Your task to perform on an android device: change your default location settings in chrome Image 0: 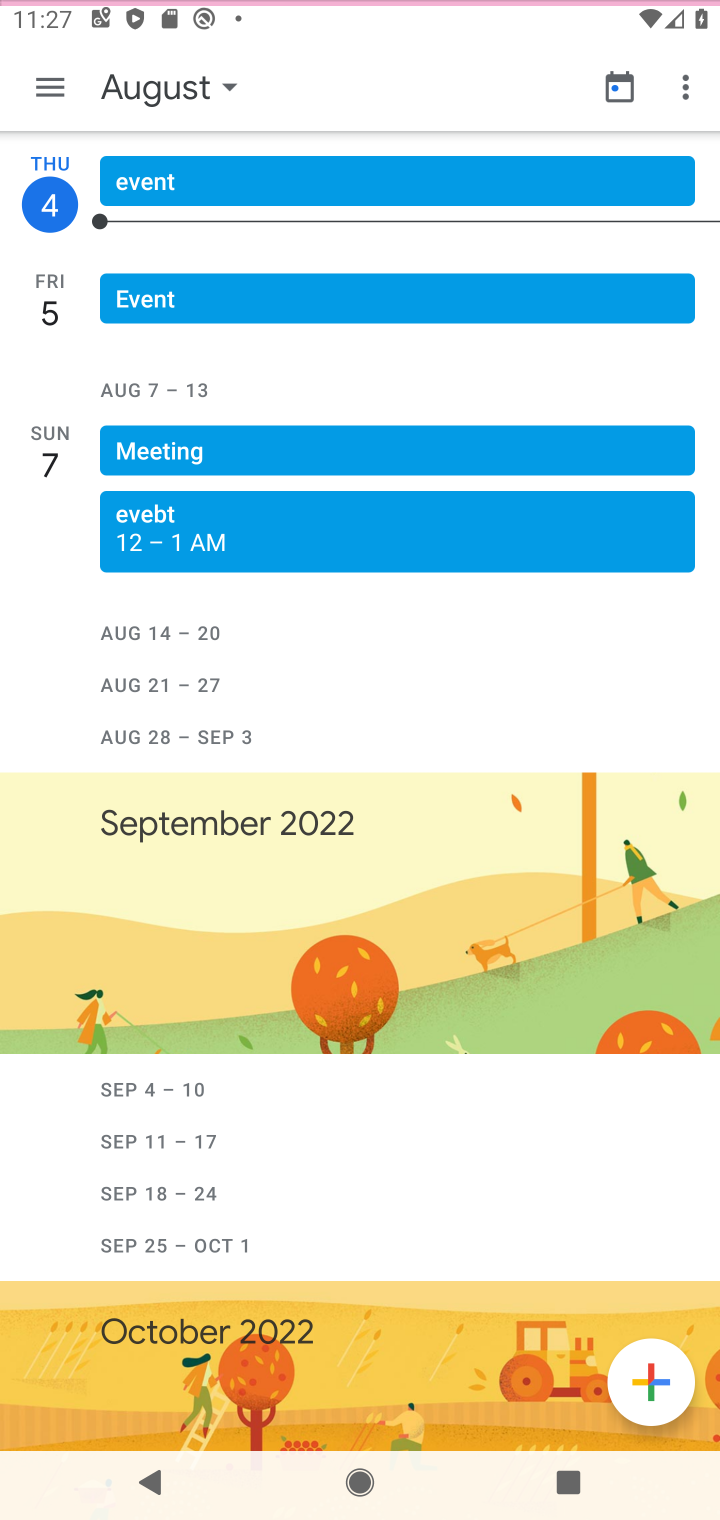
Step 0: press back button
Your task to perform on an android device: change your default location settings in chrome Image 1: 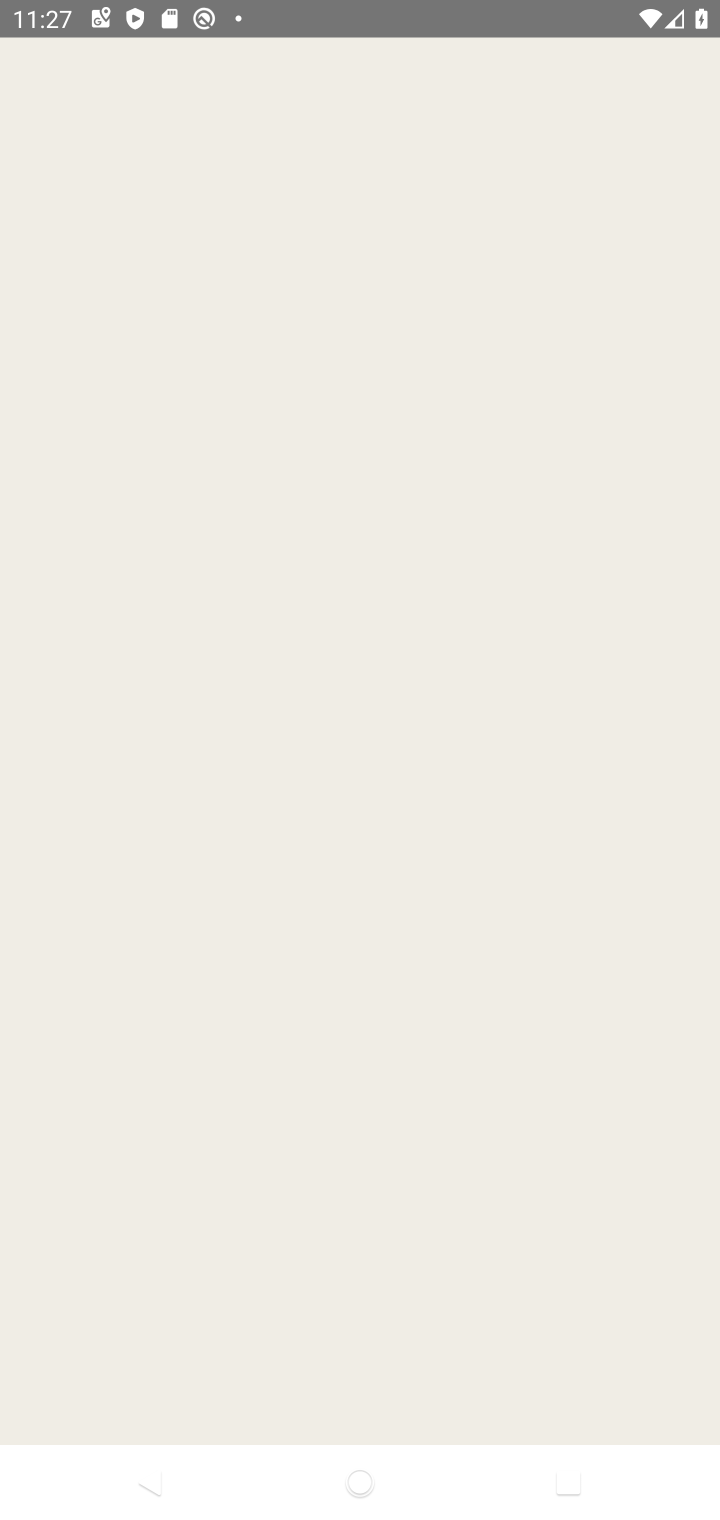
Step 1: press back button
Your task to perform on an android device: change your default location settings in chrome Image 2: 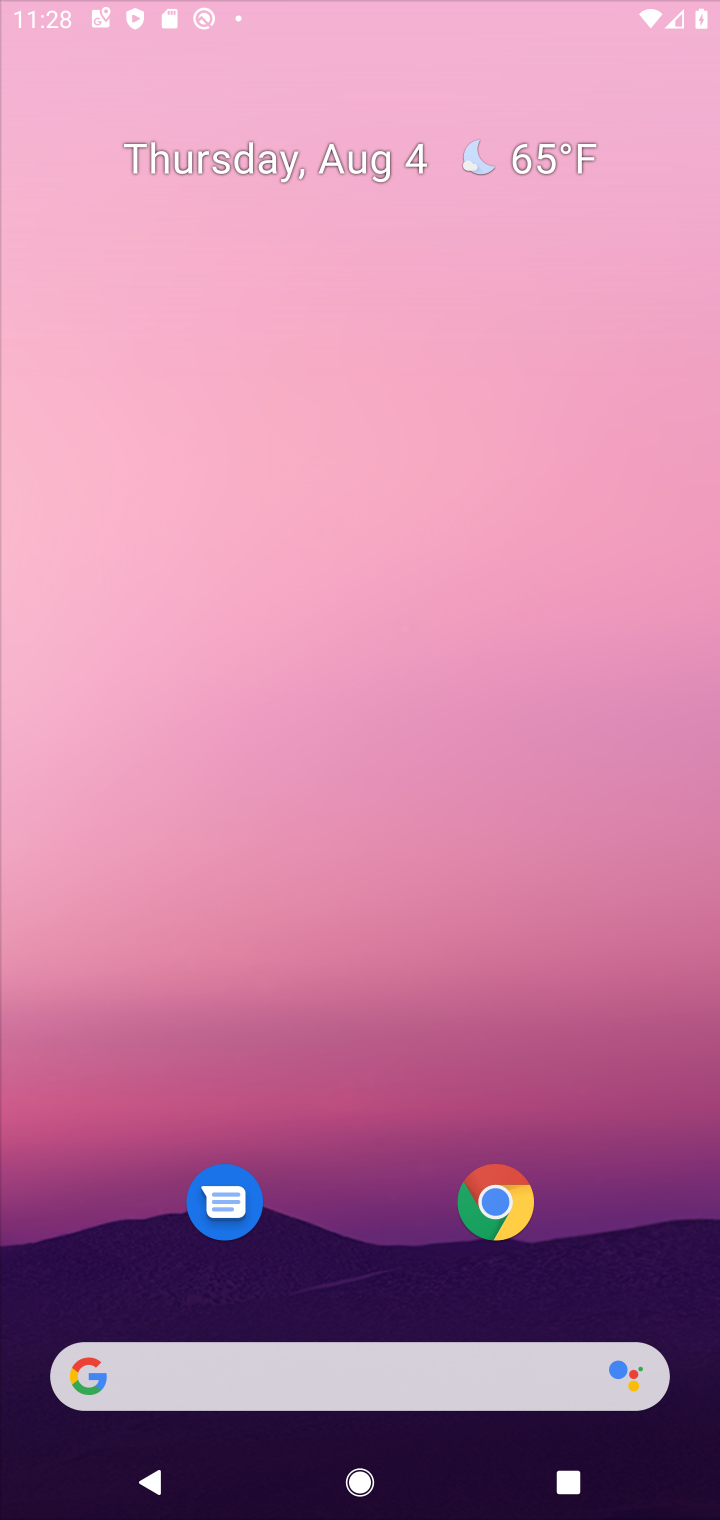
Step 2: press back button
Your task to perform on an android device: change your default location settings in chrome Image 3: 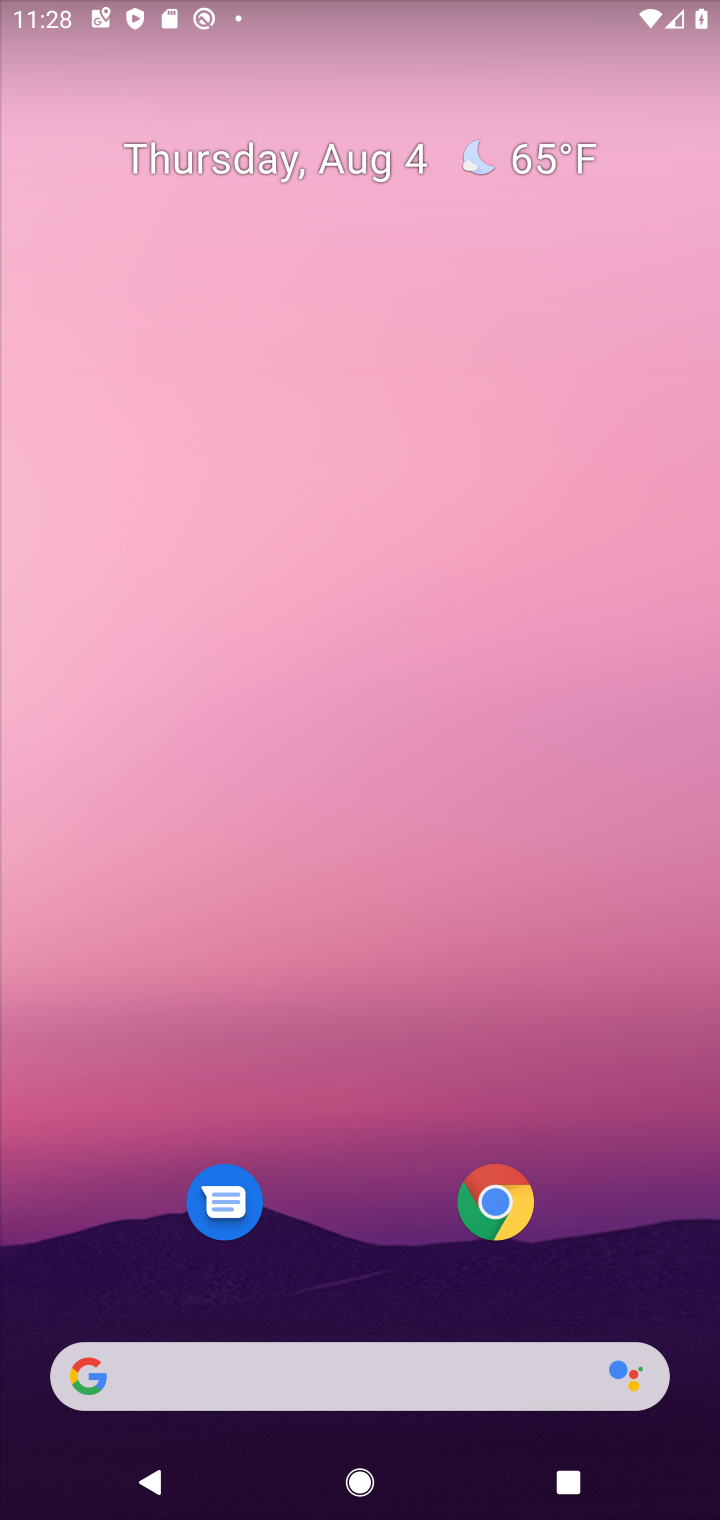
Step 3: press home button
Your task to perform on an android device: change your default location settings in chrome Image 4: 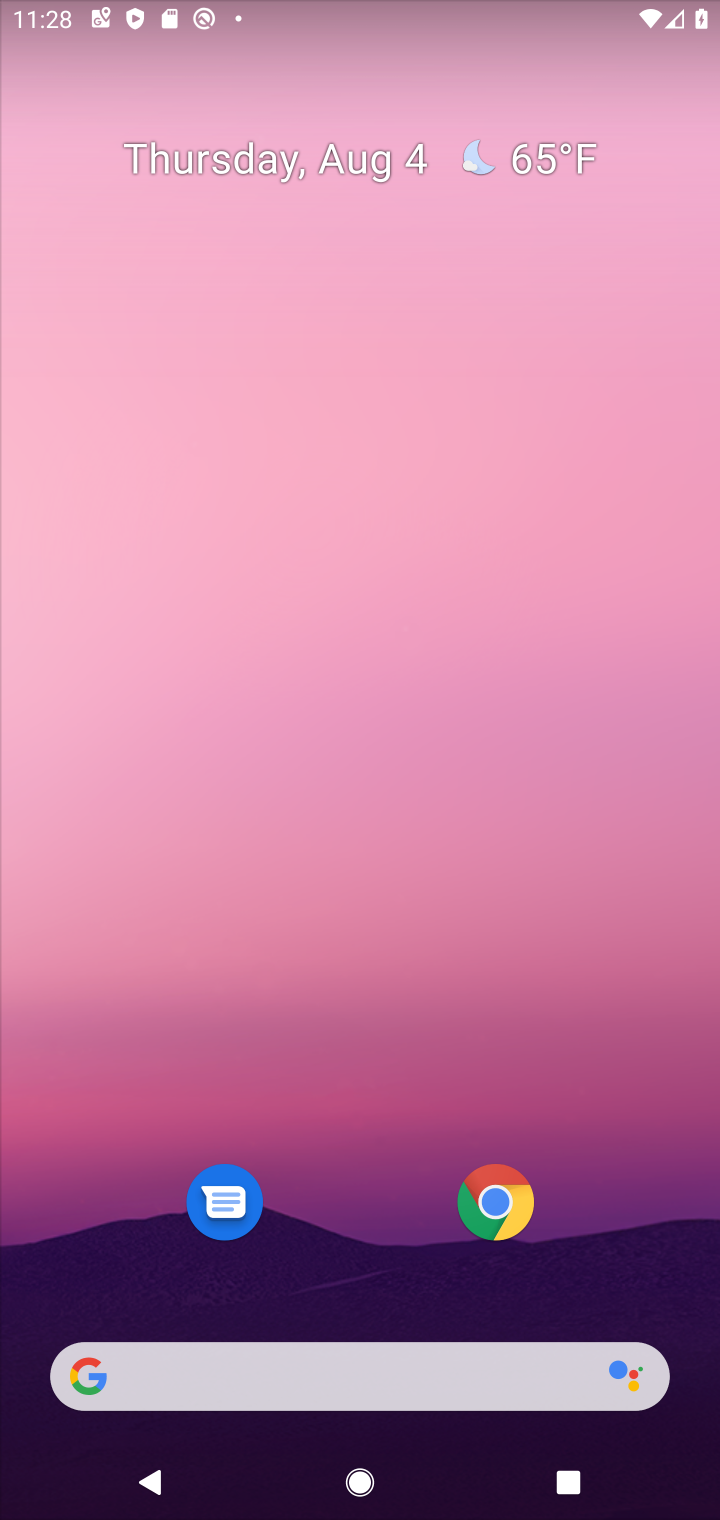
Step 4: click (463, 1198)
Your task to perform on an android device: change your default location settings in chrome Image 5: 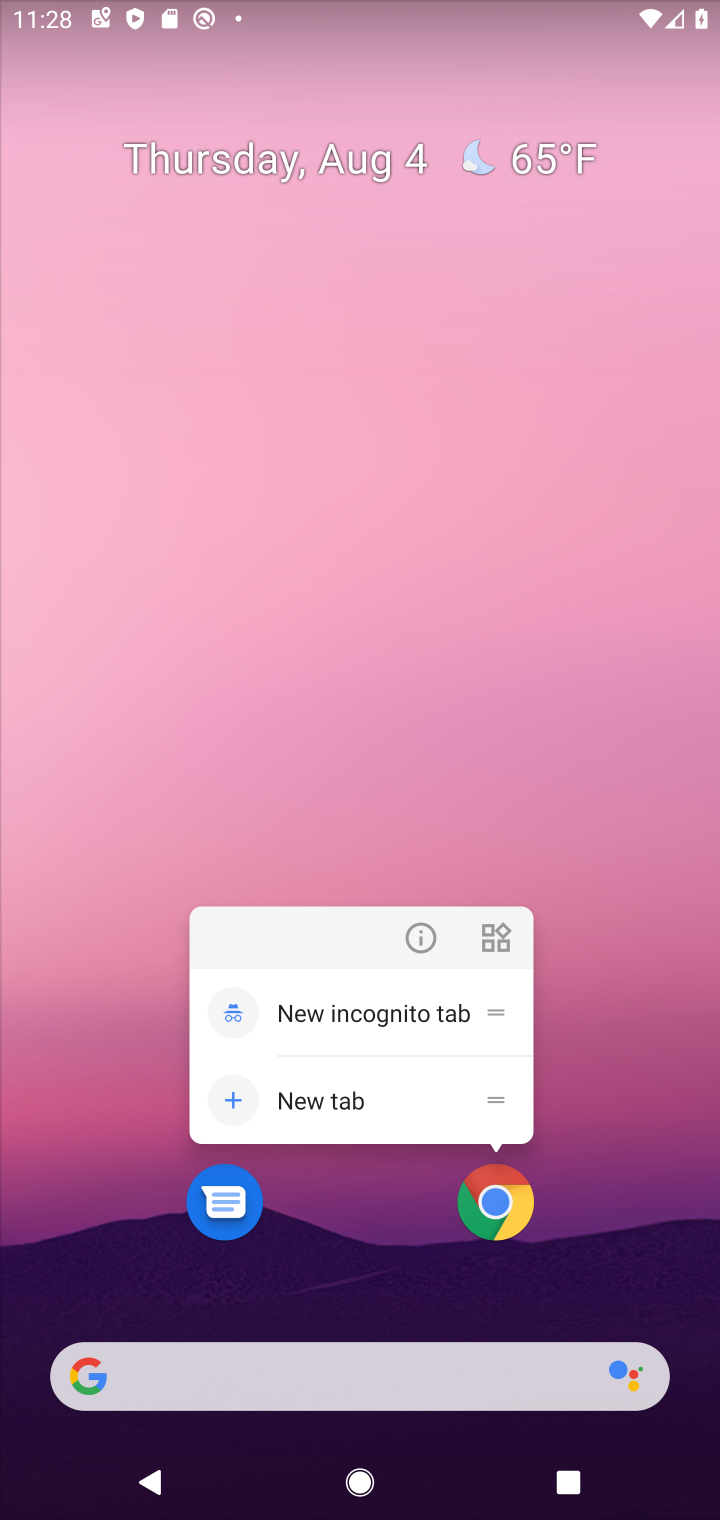
Step 5: click (486, 1204)
Your task to perform on an android device: change your default location settings in chrome Image 6: 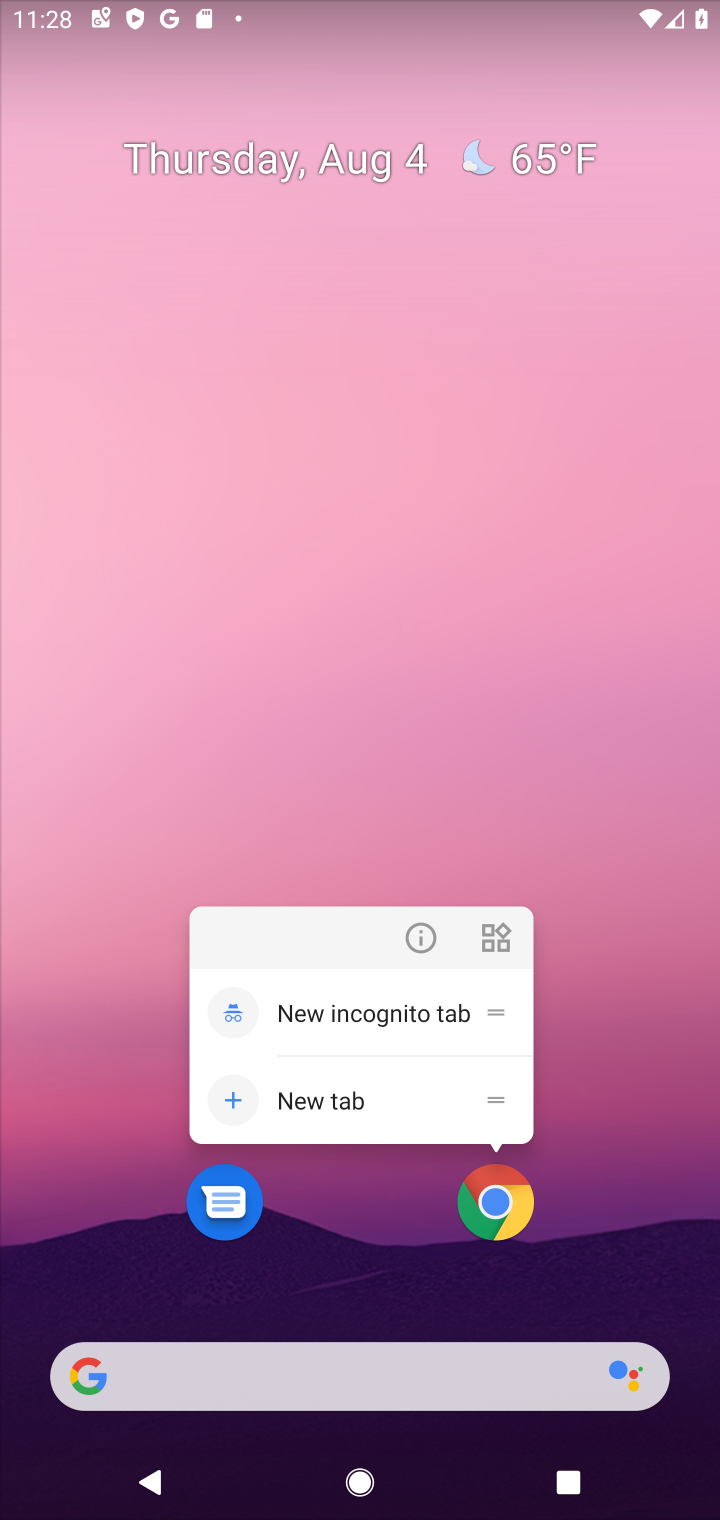
Step 6: click (486, 1206)
Your task to perform on an android device: change your default location settings in chrome Image 7: 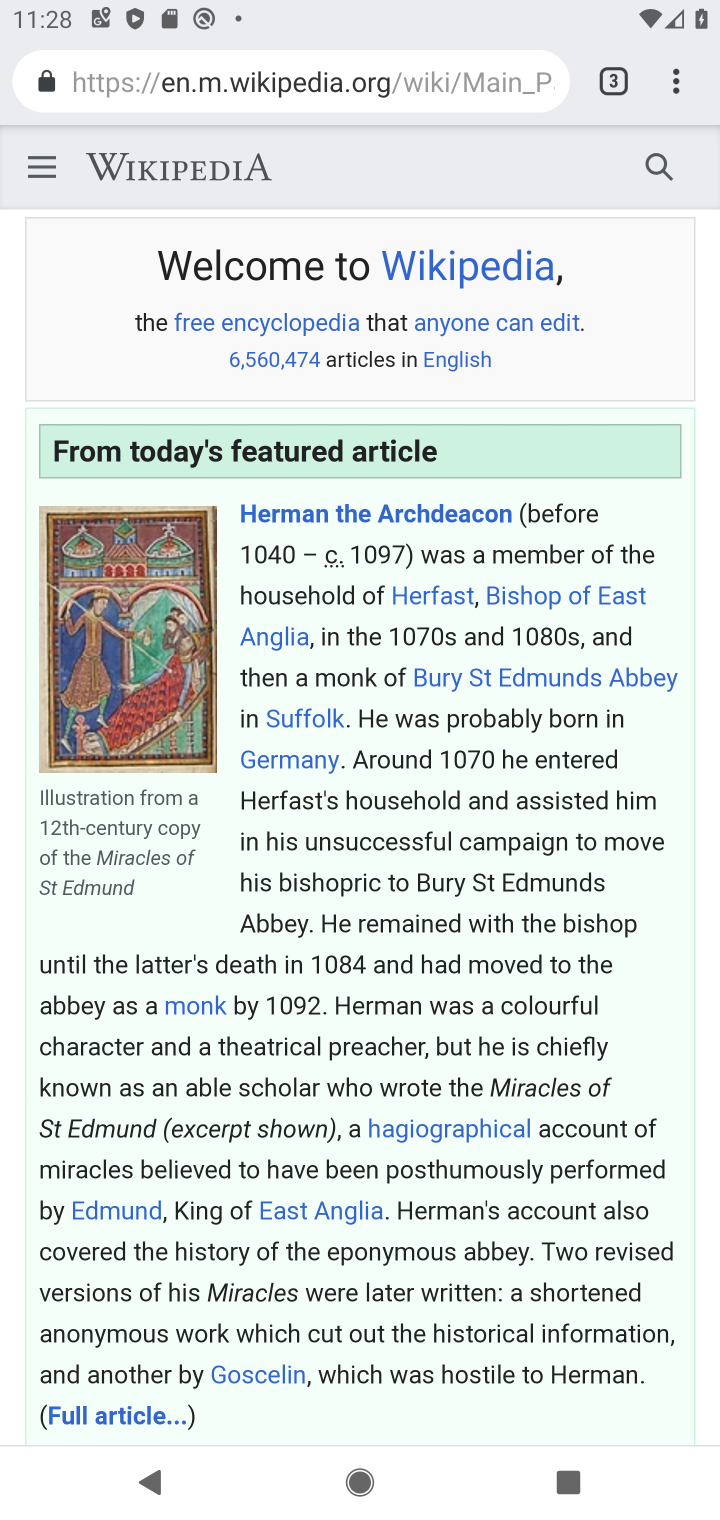
Step 7: drag from (678, 74) to (428, 978)
Your task to perform on an android device: change your default location settings in chrome Image 8: 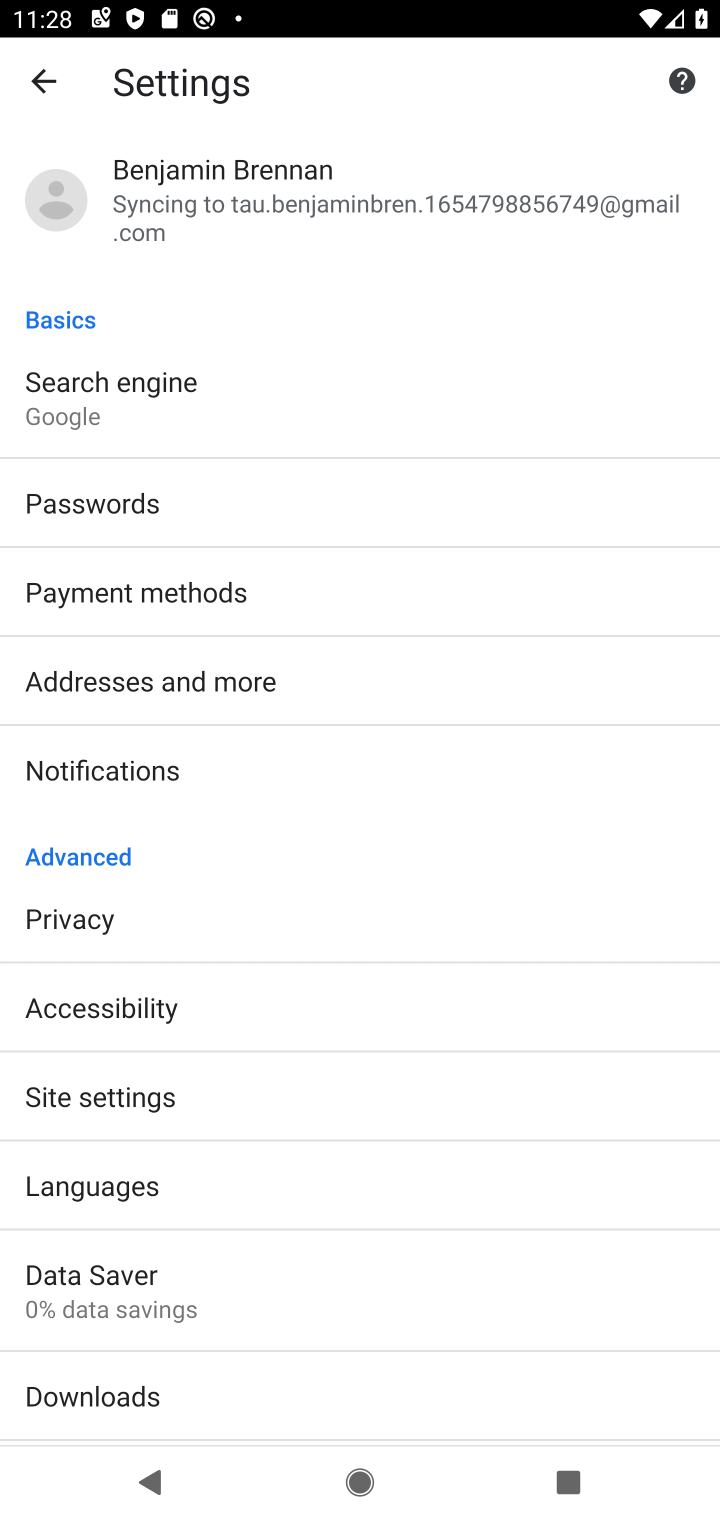
Step 8: click (174, 1073)
Your task to perform on an android device: change your default location settings in chrome Image 9: 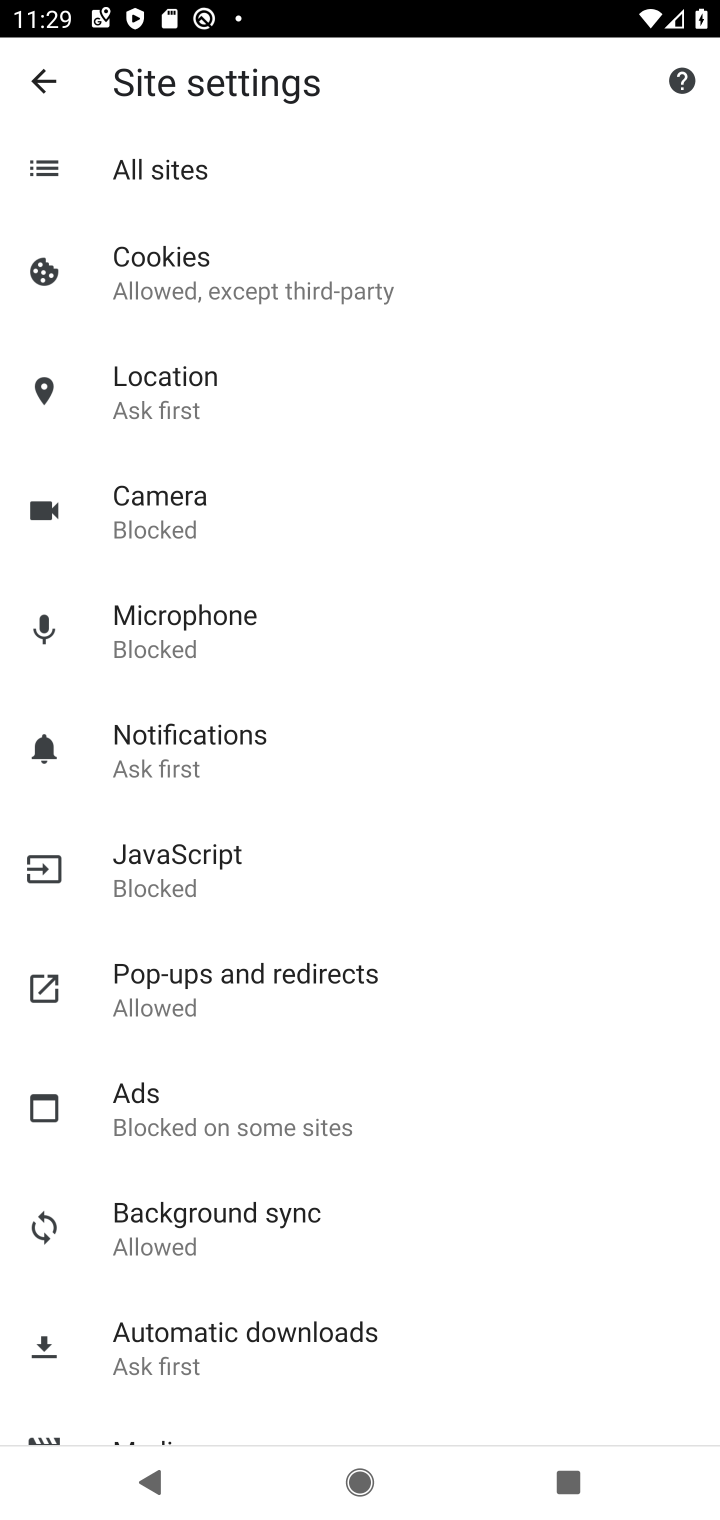
Step 9: click (270, 1090)
Your task to perform on an android device: change your default location settings in chrome Image 10: 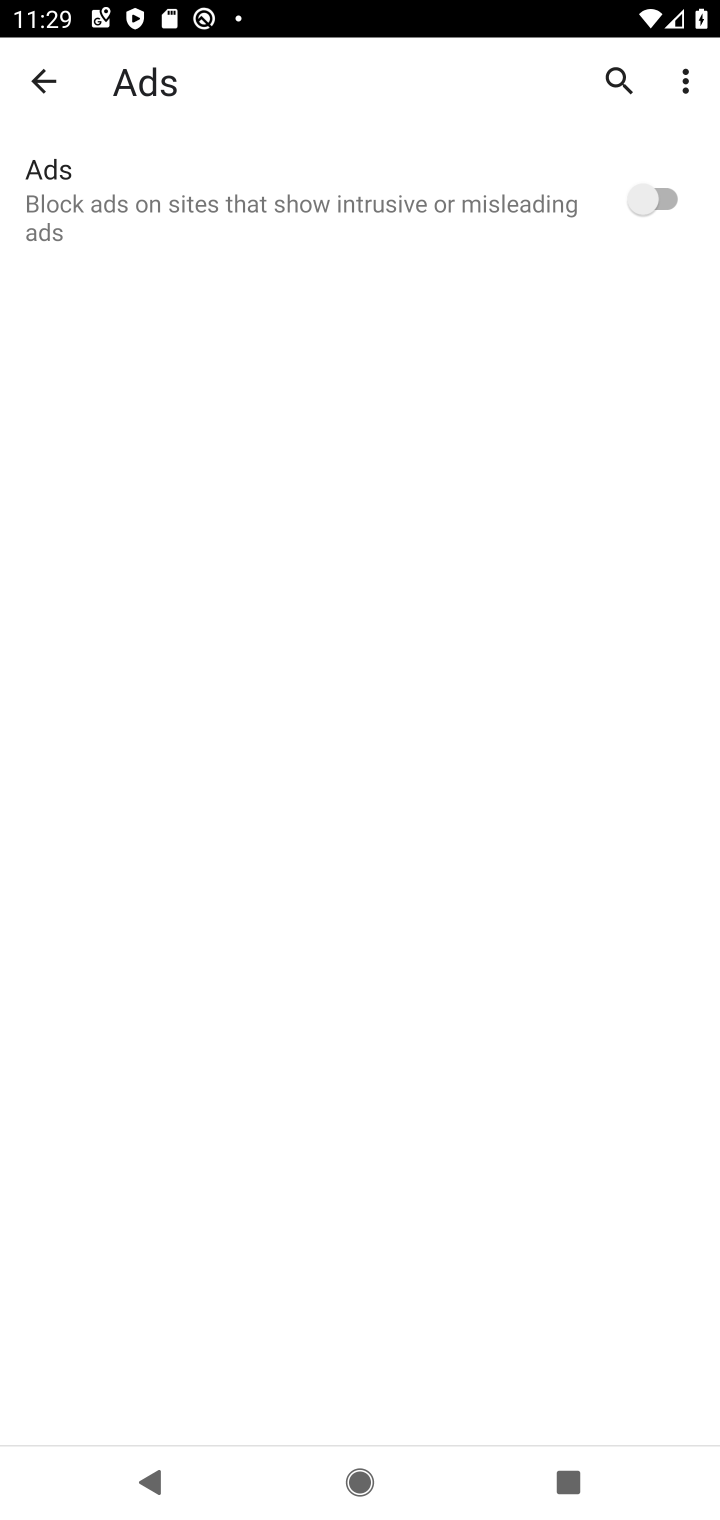
Step 10: click (26, 72)
Your task to perform on an android device: change your default location settings in chrome Image 11: 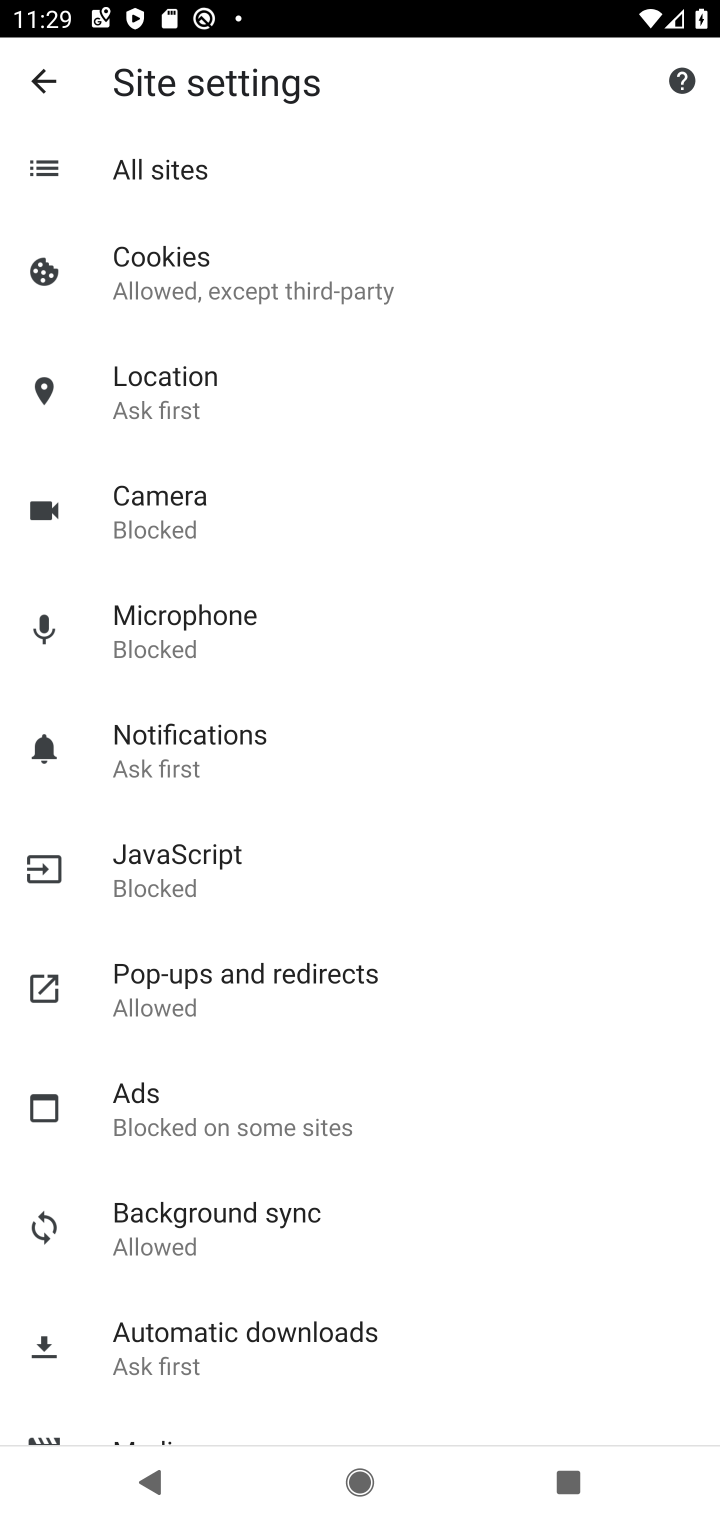
Step 11: click (220, 397)
Your task to perform on an android device: change your default location settings in chrome Image 12: 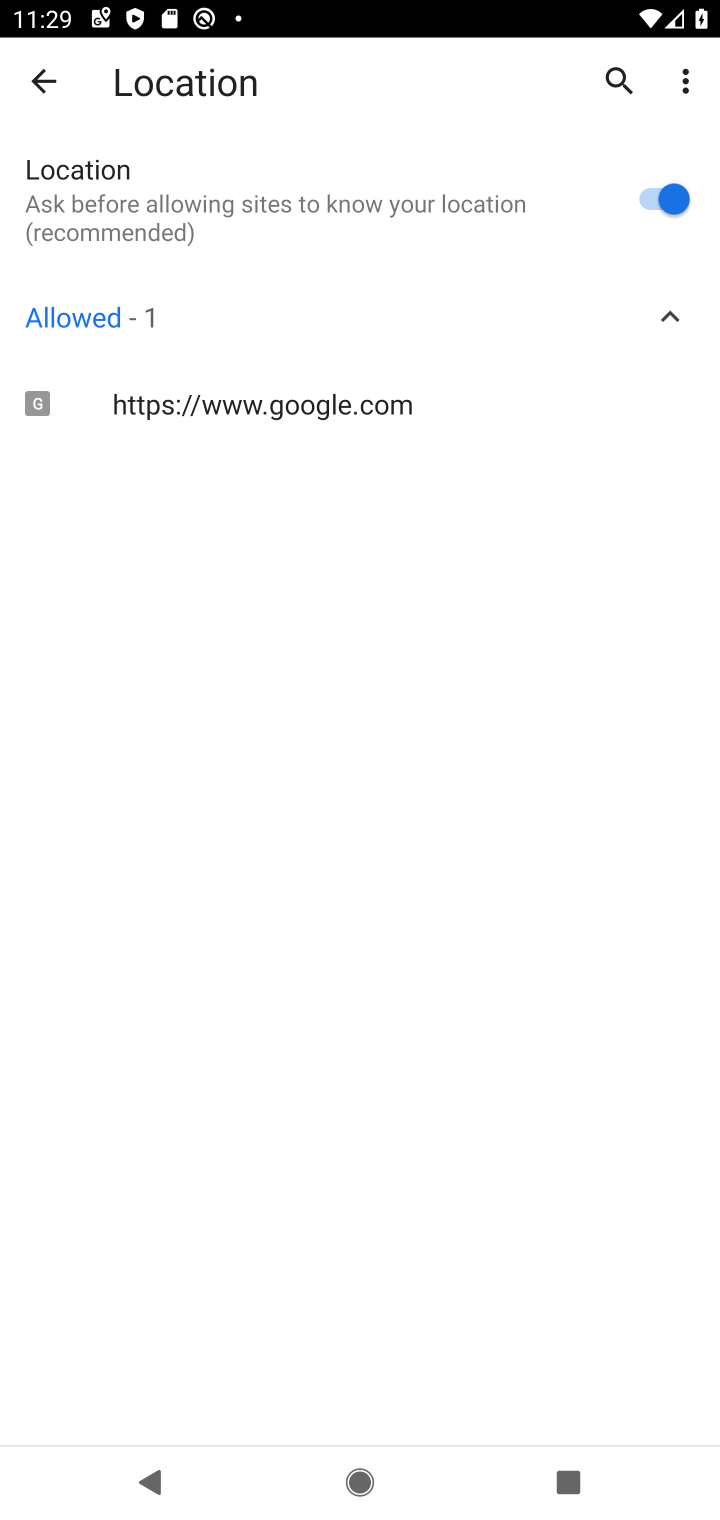
Step 12: click (688, 188)
Your task to perform on an android device: change your default location settings in chrome Image 13: 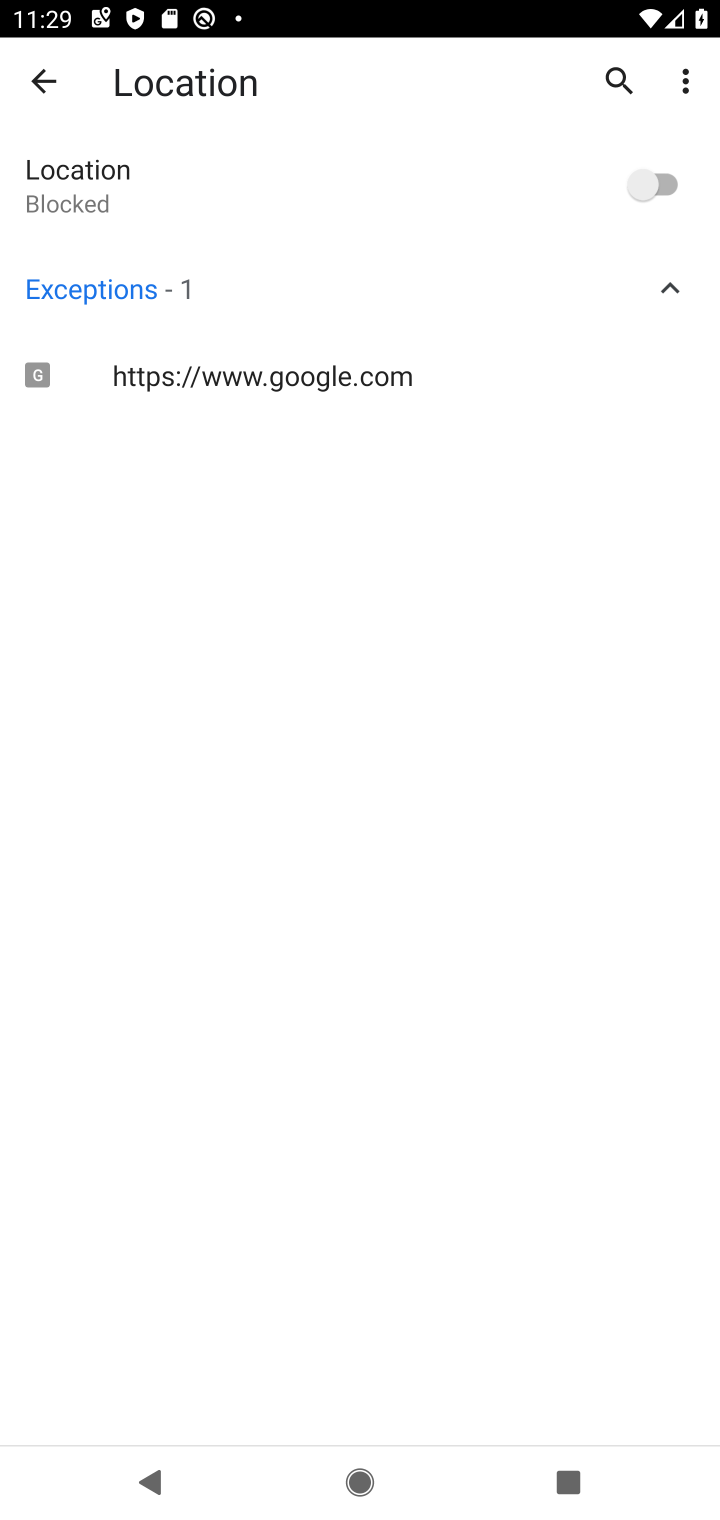
Step 13: task complete